Your task to perform on an android device: Show the shopping cart on costco. Add logitech g903 to the cart on costco Image 0: 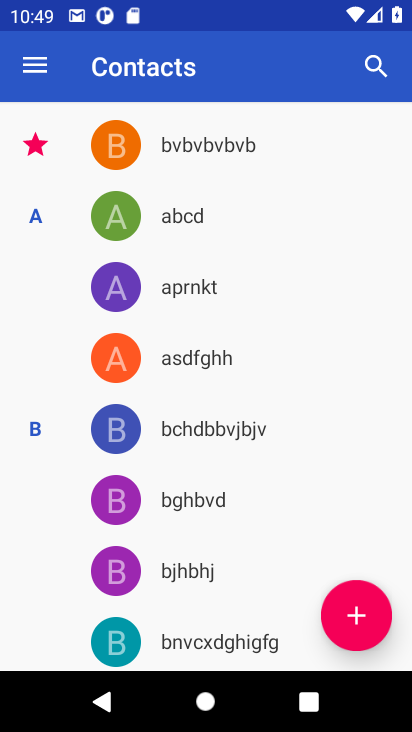
Step 0: press home button
Your task to perform on an android device: Show the shopping cart on costco. Add logitech g903 to the cart on costco Image 1: 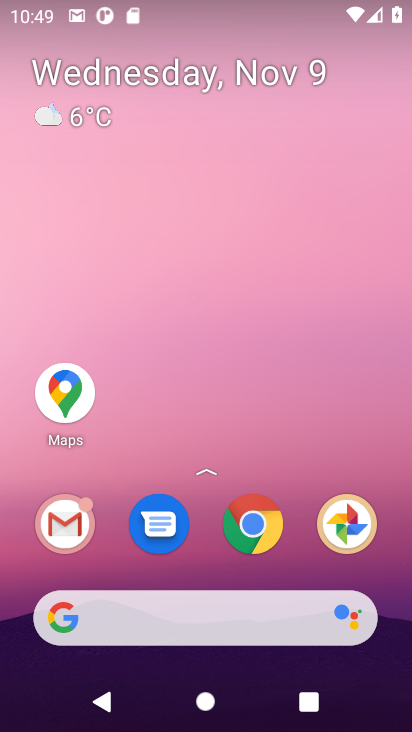
Step 1: click (255, 527)
Your task to perform on an android device: Show the shopping cart on costco. Add logitech g903 to the cart on costco Image 2: 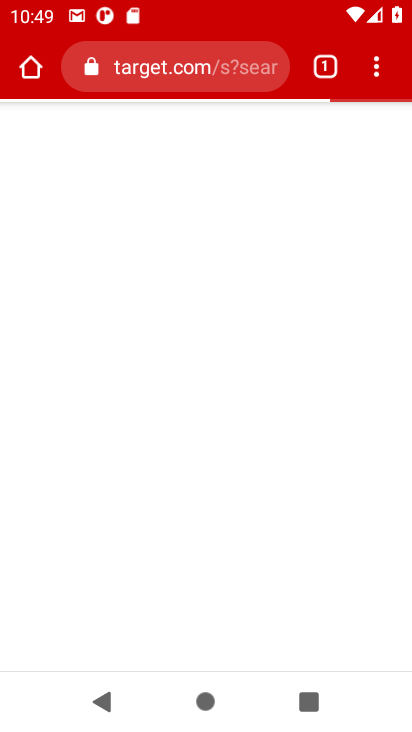
Step 2: click (326, 64)
Your task to perform on an android device: Show the shopping cart on costco. Add logitech g903 to the cart on costco Image 3: 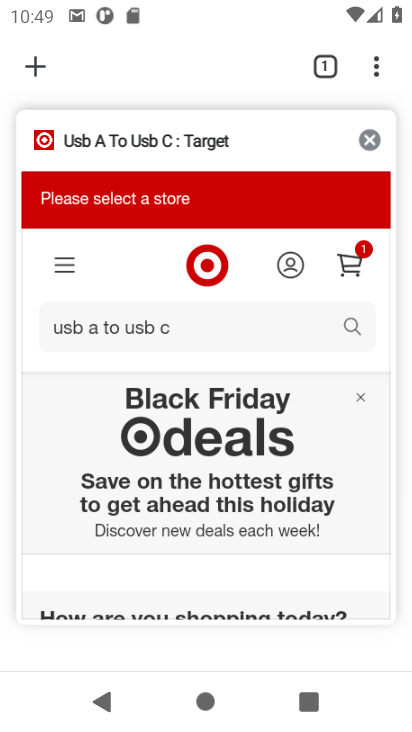
Step 3: click (31, 70)
Your task to perform on an android device: Show the shopping cart on costco. Add logitech g903 to the cart on costco Image 4: 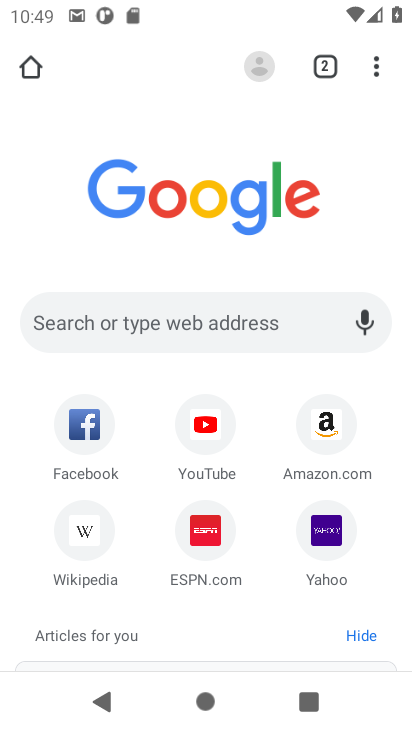
Step 4: click (167, 315)
Your task to perform on an android device: Show the shopping cart on costco. Add logitech g903 to the cart on costco Image 5: 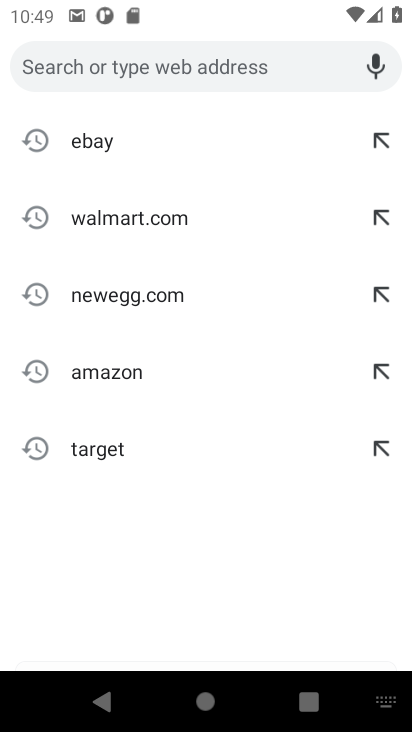
Step 5: type "costco"
Your task to perform on an android device: Show the shopping cart on costco. Add logitech g903 to the cart on costco Image 6: 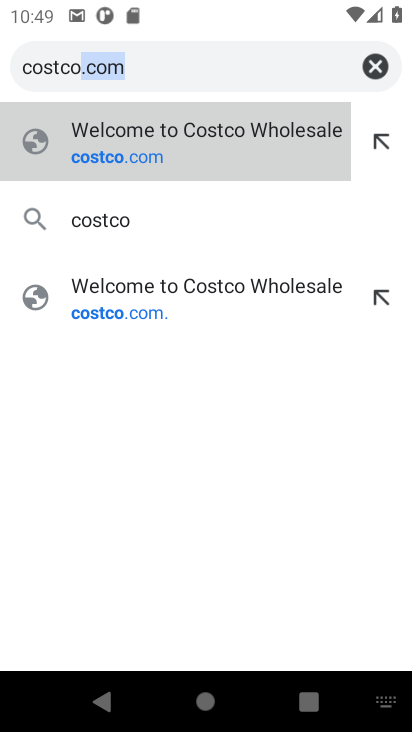
Step 6: click (136, 146)
Your task to perform on an android device: Show the shopping cart on costco. Add logitech g903 to the cart on costco Image 7: 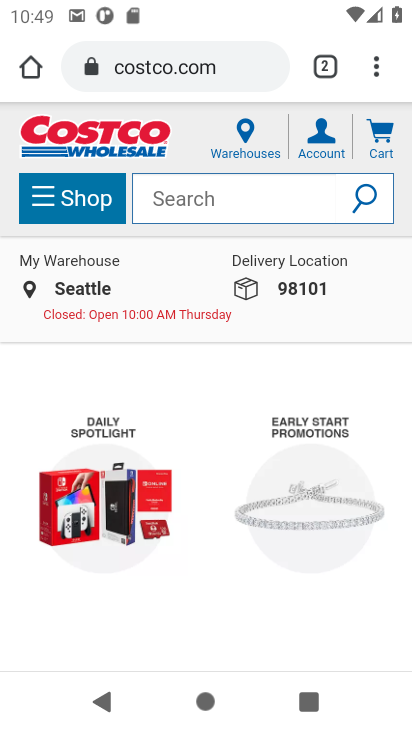
Step 7: click (216, 189)
Your task to perform on an android device: Show the shopping cart on costco. Add logitech g903 to the cart on costco Image 8: 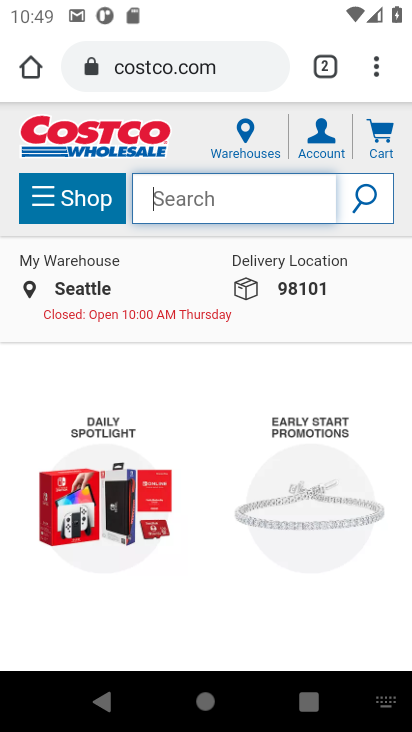
Step 8: type "logitech g903"
Your task to perform on an android device: Show the shopping cart on costco. Add logitech g903 to the cart on costco Image 9: 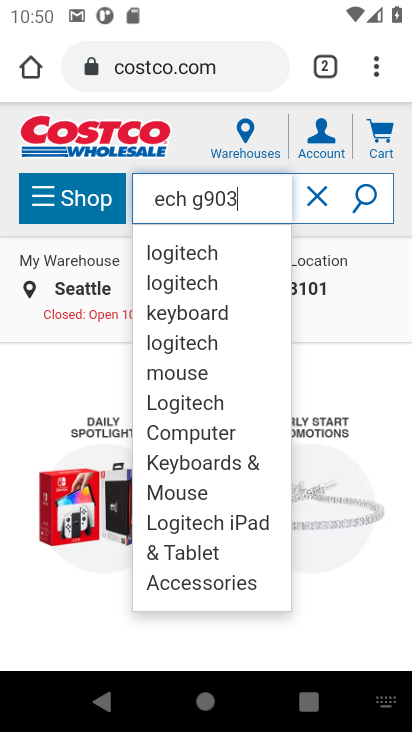
Step 9: click (362, 193)
Your task to perform on an android device: Show the shopping cart on costco. Add logitech g903 to the cart on costco Image 10: 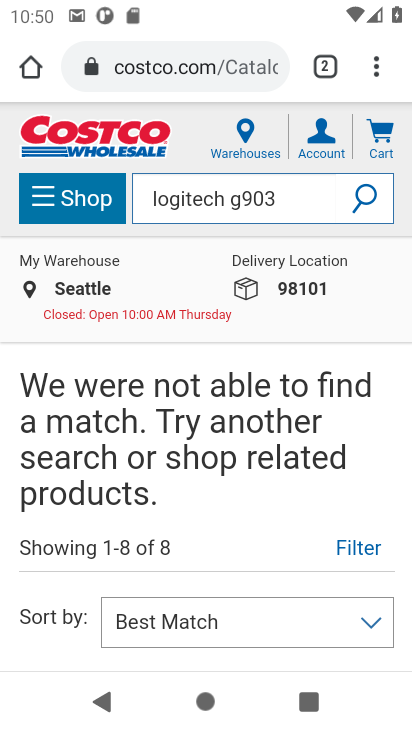
Step 10: drag from (246, 536) to (332, 116)
Your task to perform on an android device: Show the shopping cart on costco. Add logitech g903 to the cart on costco Image 11: 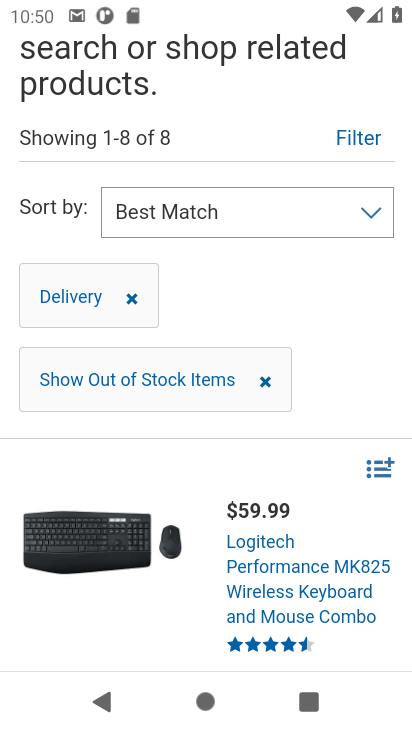
Step 11: drag from (211, 504) to (305, 164)
Your task to perform on an android device: Show the shopping cart on costco. Add logitech g903 to the cart on costco Image 12: 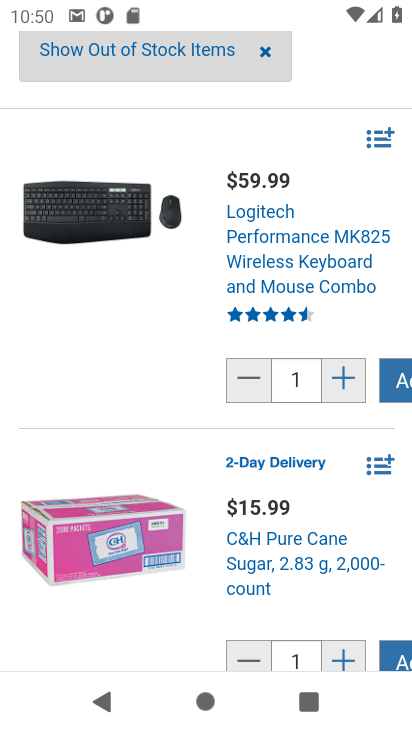
Step 12: drag from (200, 595) to (267, 325)
Your task to perform on an android device: Show the shopping cart on costco. Add logitech g903 to the cart on costco Image 13: 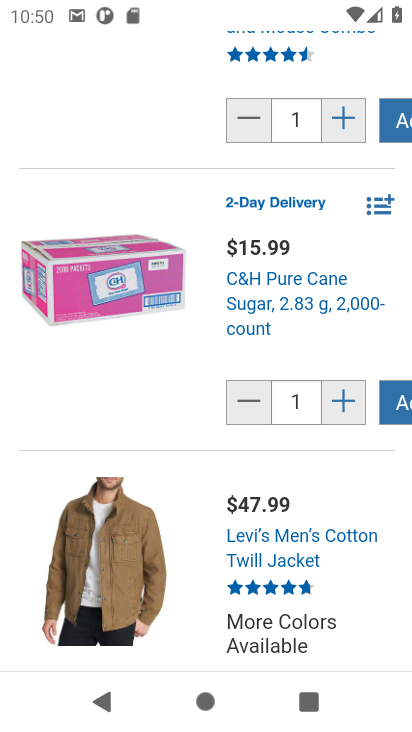
Step 13: drag from (206, 622) to (267, 117)
Your task to perform on an android device: Show the shopping cart on costco. Add logitech g903 to the cart on costco Image 14: 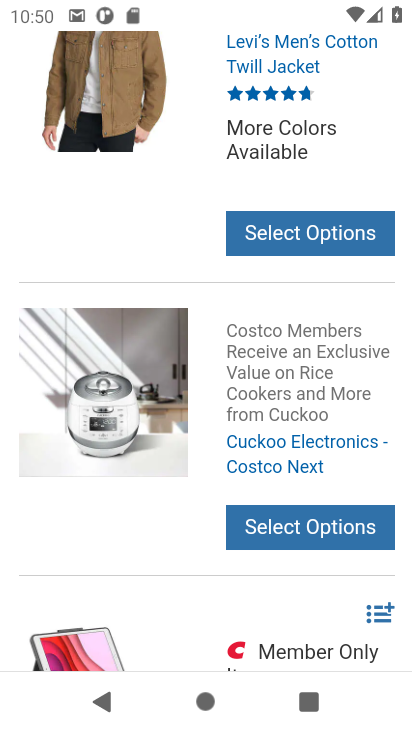
Step 14: drag from (198, 532) to (286, 245)
Your task to perform on an android device: Show the shopping cart on costco. Add logitech g903 to the cart on costco Image 15: 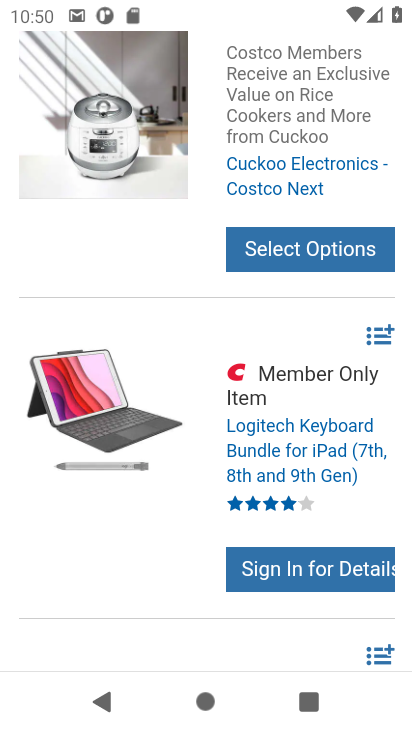
Step 15: drag from (240, 198) to (139, 680)
Your task to perform on an android device: Show the shopping cart on costco. Add logitech g903 to the cart on costco Image 16: 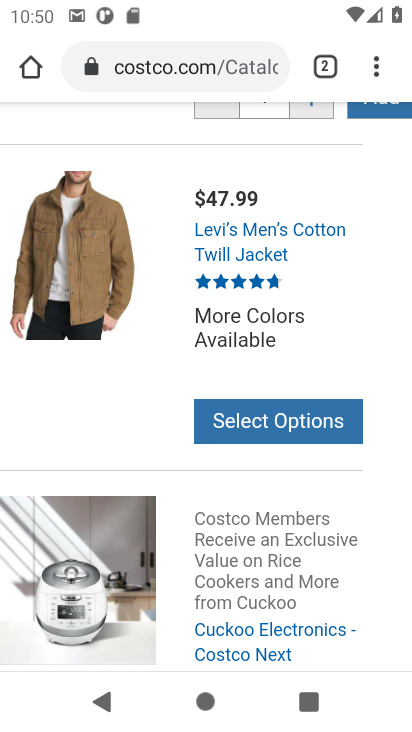
Step 16: drag from (328, 191) to (219, 562)
Your task to perform on an android device: Show the shopping cart on costco. Add logitech g903 to the cart on costco Image 17: 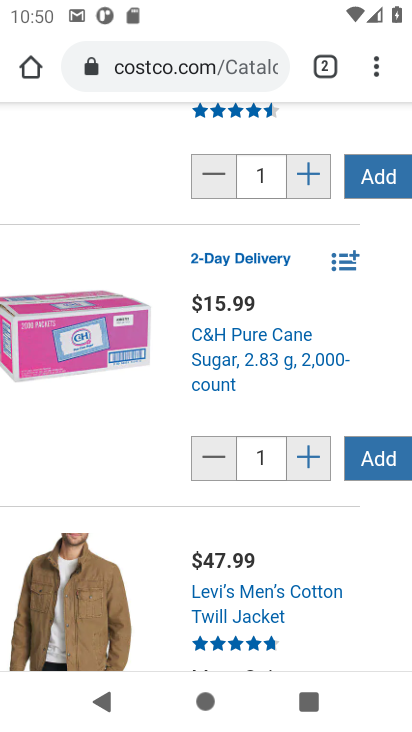
Step 17: drag from (322, 263) to (256, 588)
Your task to perform on an android device: Show the shopping cart on costco. Add logitech g903 to the cart on costco Image 18: 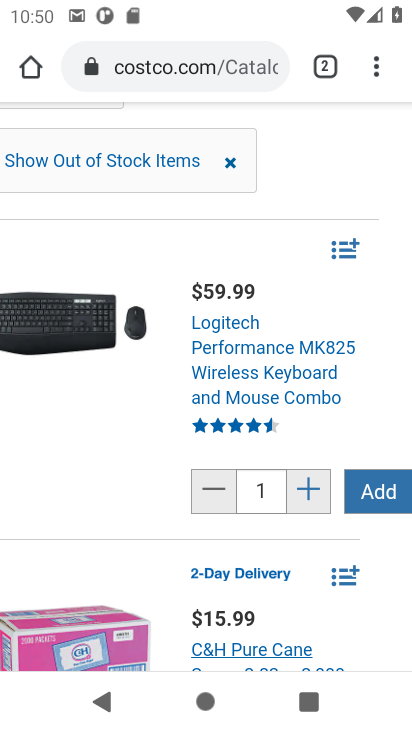
Step 18: click (384, 493)
Your task to perform on an android device: Show the shopping cart on costco. Add logitech g903 to the cart on costco Image 19: 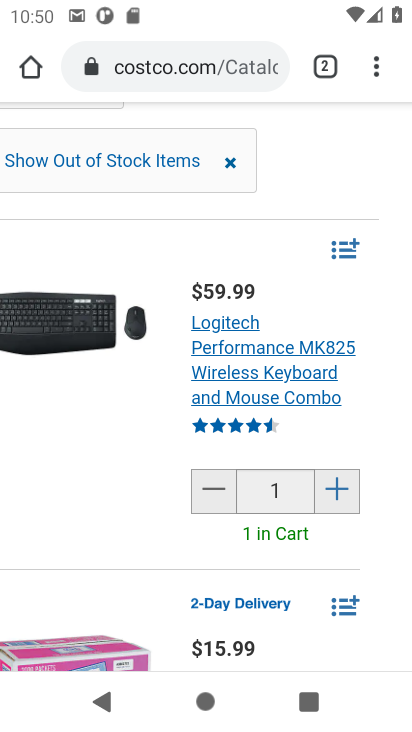
Step 19: task complete